Your task to perform on an android device: Search for seafood restaurants on Google Maps Image 0: 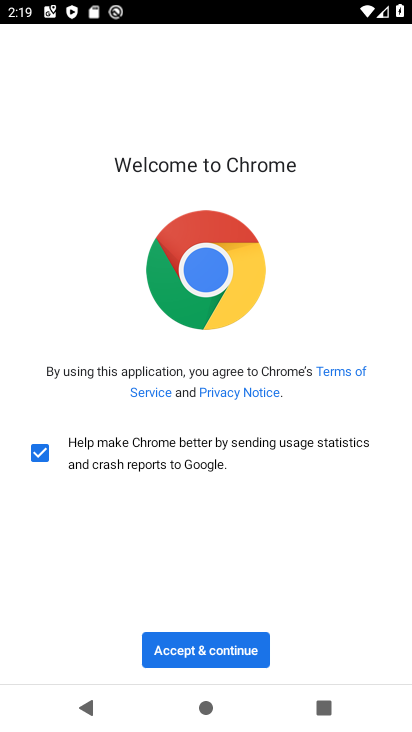
Step 0: press home button
Your task to perform on an android device: Search for seafood restaurants on Google Maps Image 1: 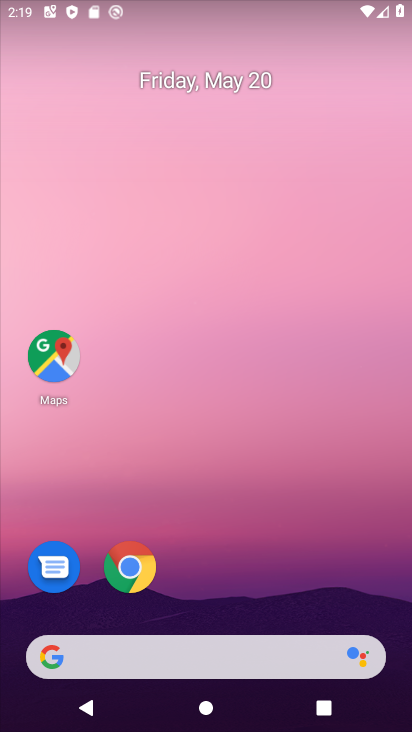
Step 1: click (63, 359)
Your task to perform on an android device: Search for seafood restaurants on Google Maps Image 2: 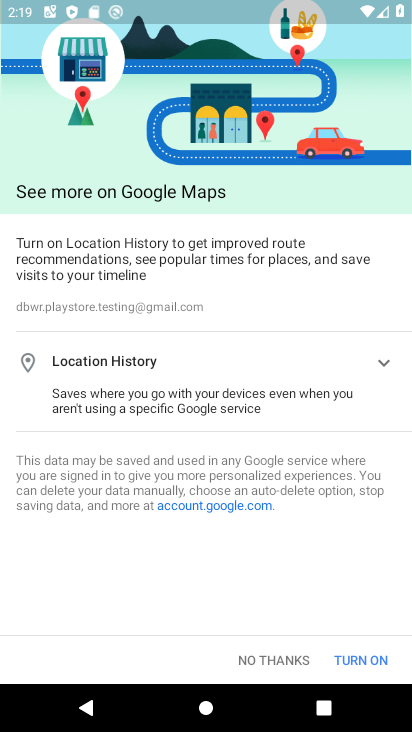
Step 2: click (303, 668)
Your task to perform on an android device: Search for seafood restaurants on Google Maps Image 3: 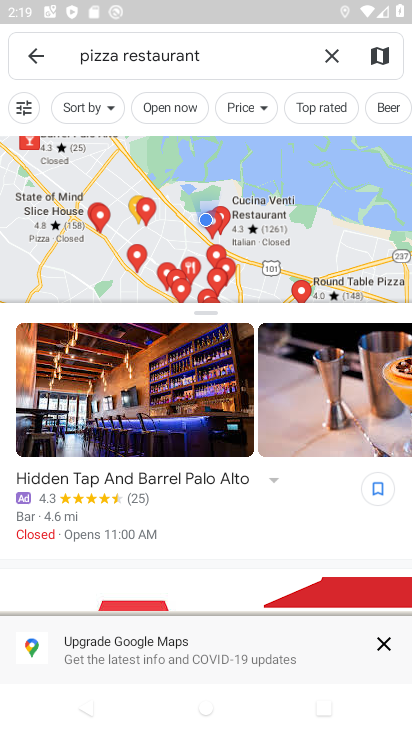
Step 3: click (338, 45)
Your task to perform on an android device: Search for seafood restaurants on Google Maps Image 4: 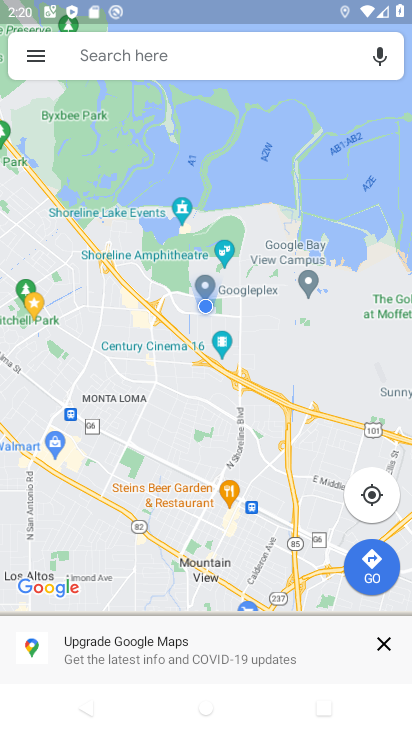
Step 4: click (207, 59)
Your task to perform on an android device: Search for seafood restaurants on Google Maps Image 5: 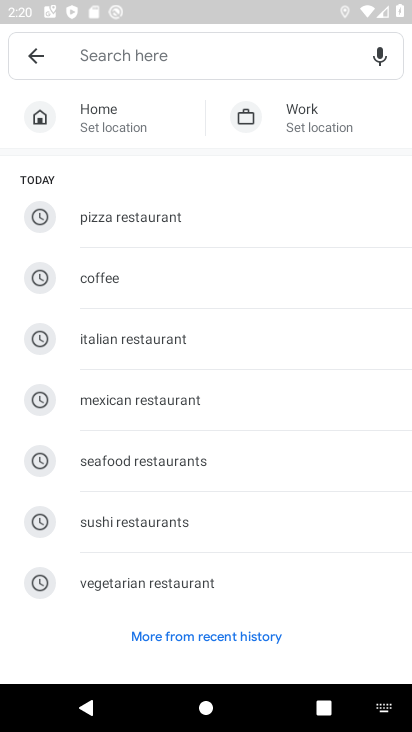
Step 5: type "seafood restaurants"
Your task to perform on an android device: Search for seafood restaurants on Google Maps Image 6: 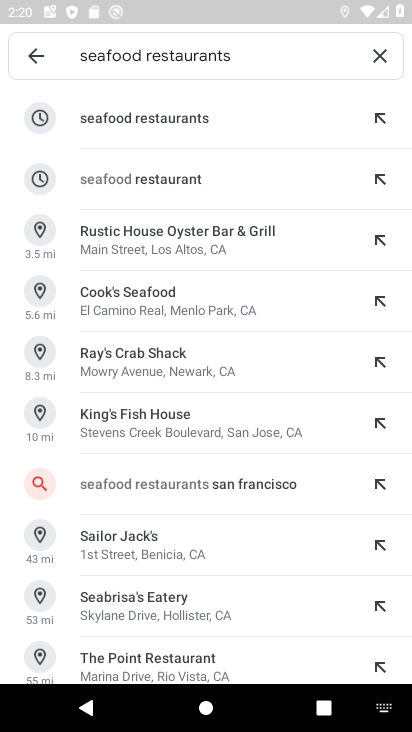
Step 6: click (214, 129)
Your task to perform on an android device: Search for seafood restaurants on Google Maps Image 7: 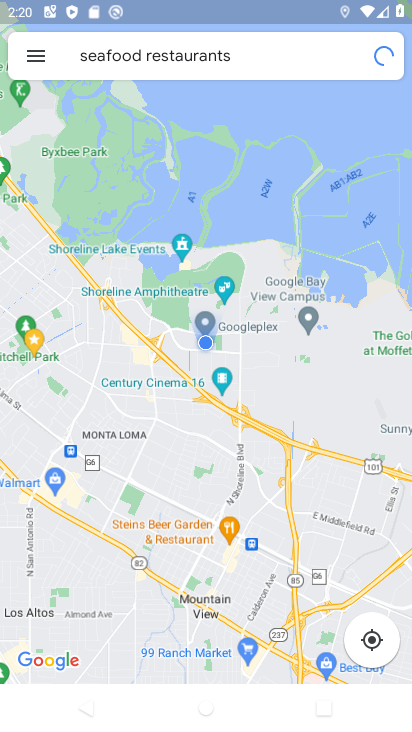
Step 7: task complete